Your task to perform on an android device: Open Google Maps Image 0: 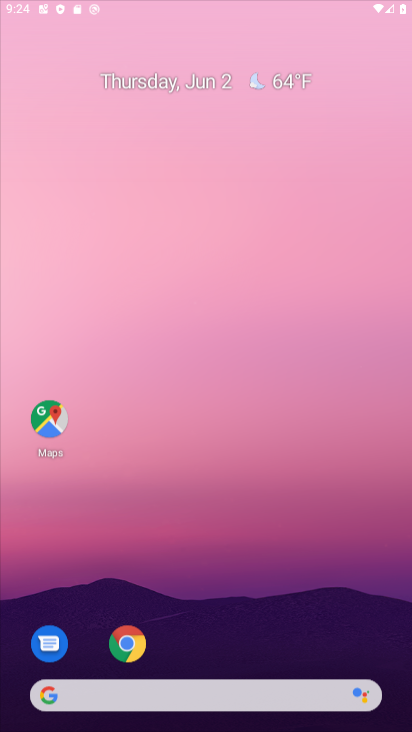
Step 0: press home button
Your task to perform on an android device: Open Google Maps Image 1: 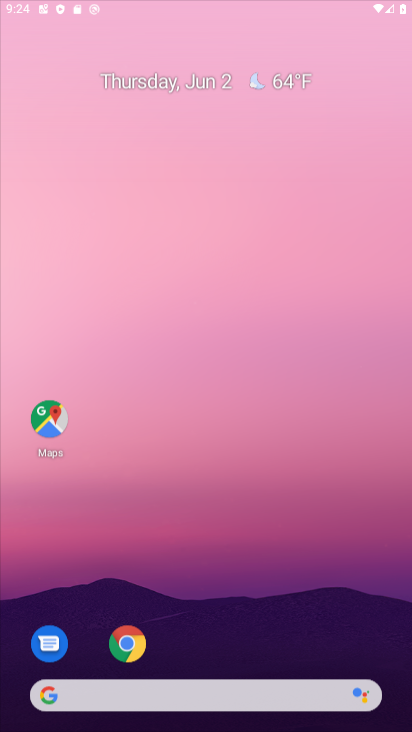
Step 1: click (124, 647)
Your task to perform on an android device: Open Google Maps Image 2: 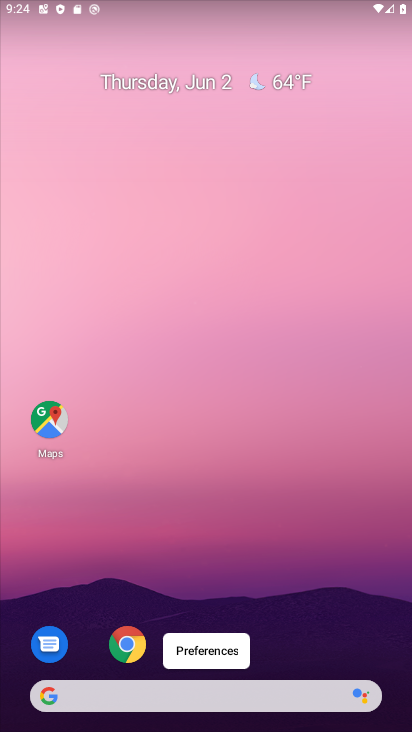
Step 2: click (133, 652)
Your task to perform on an android device: Open Google Maps Image 3: 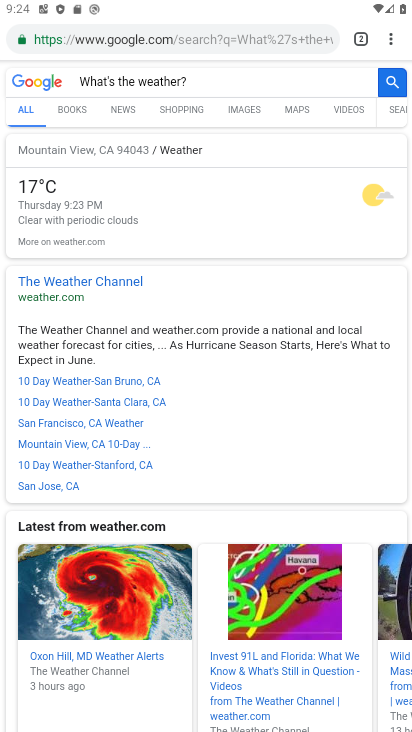
Step 3: press home button
Your task to perform on an android device: Open Google Maps Image 4: 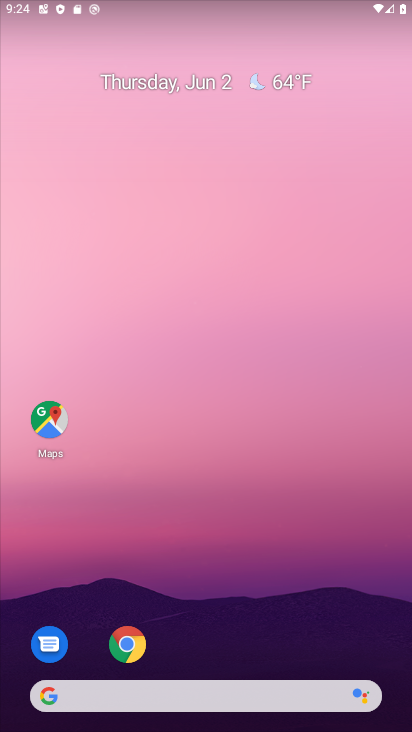
Step 4: click (44, 415)
Your task to perform on an android device: Open Google Maps Image 5: 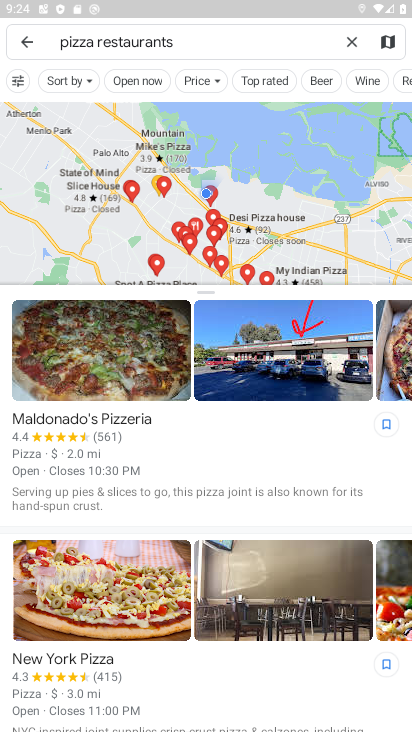
Step 5: task complete